Your task to perform on an android device: allow cookies in the chrome app Image 0: 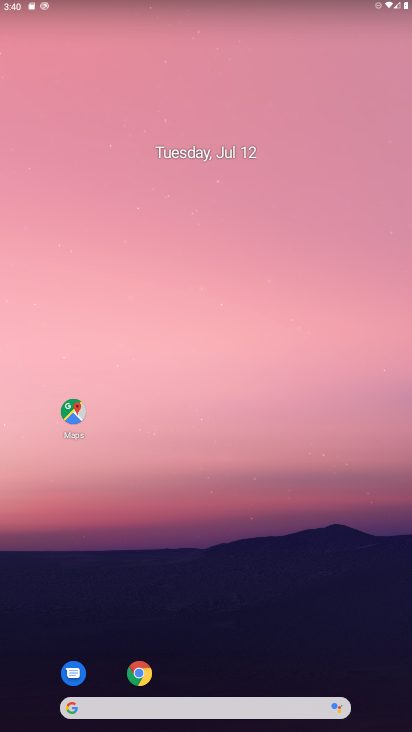
Step 0: click (140, 673)
Your task to perform on an android device: allow cookies in the chrome app Image 1: 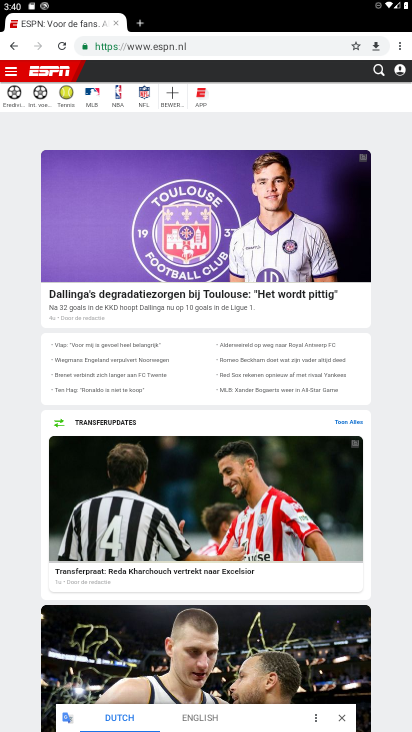
Step 1: click (401, 47)
Your task to perform on an android device: allow cookies in the chrome app Image 2: 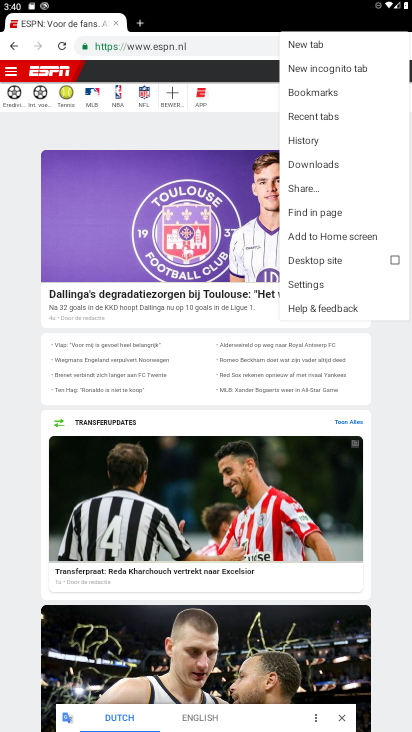
Step 2: click (316, 285)
Your task to perform on an android device: allow cookies in the chrome app Image 3: 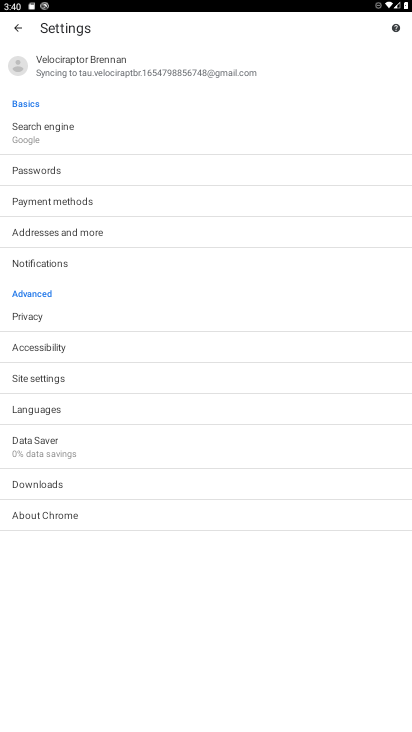
Step 3: click (54, 381)
Your task to perform on an android device: allow cookies in the chrome app Image 4: 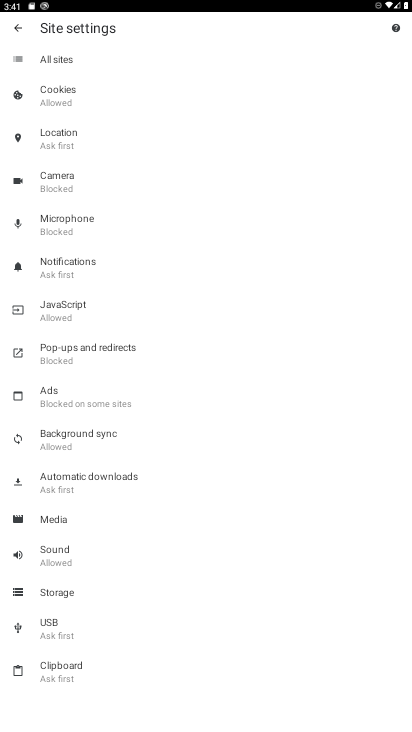
Step 4: click (60, 99)
Your task to perform on an android device: allow cookies in the chrome app Image 5: 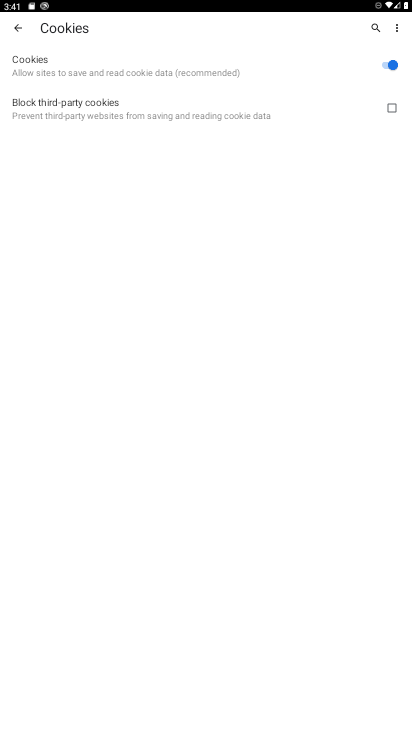
Step 5: click (391, 107)
Your task to perform on an android device: allow cookies in the chrome app Image 6: 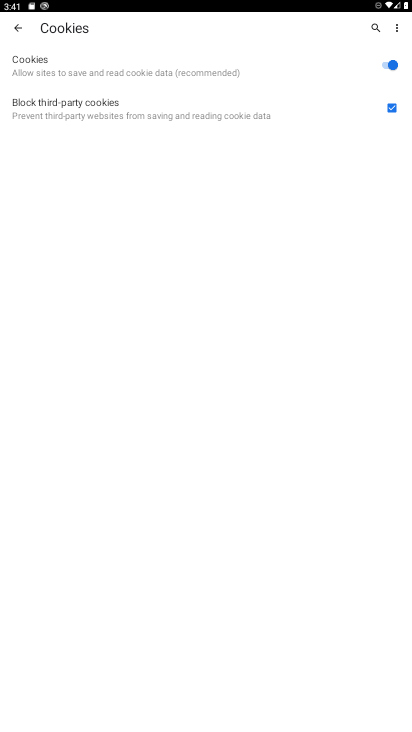
Step 6: task complete